Your task to perform on an android device: Open the web browser Image 0: 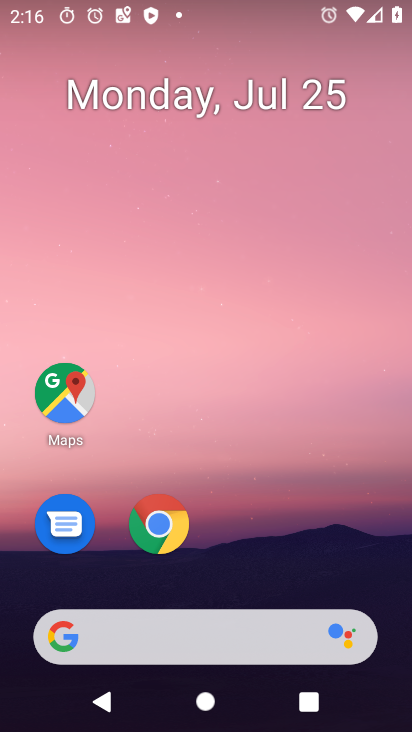
Step 0: press home button
Your task to perform on an android device: Open the web browser Image 1: 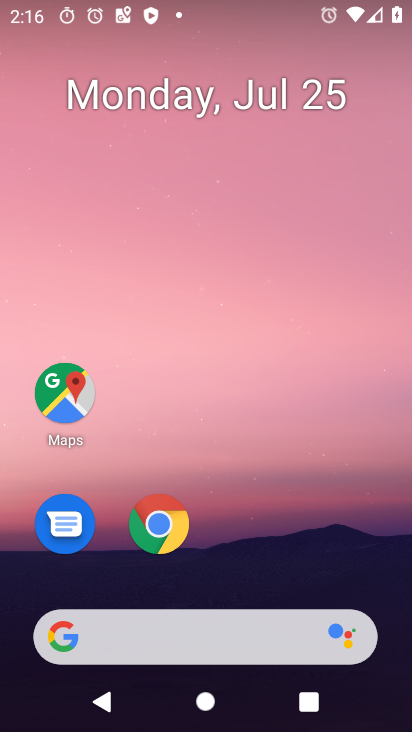
Step 1: click (51, 637)
Your task to perform on an android device: Open the web browser Image 2: 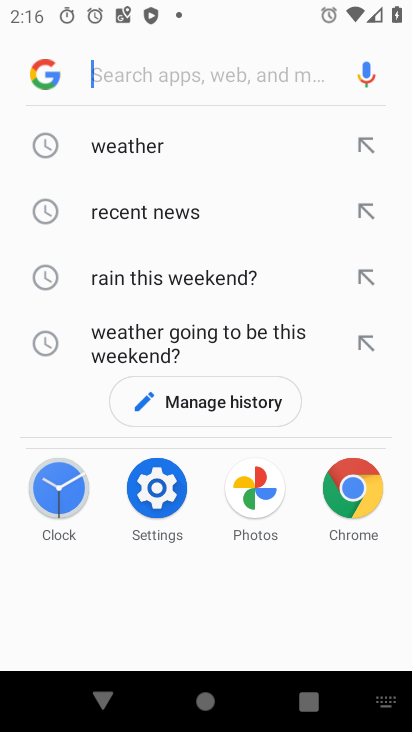
Step 2: task complete